Your task to perform on an android device: change alarm snooze length Image 0: 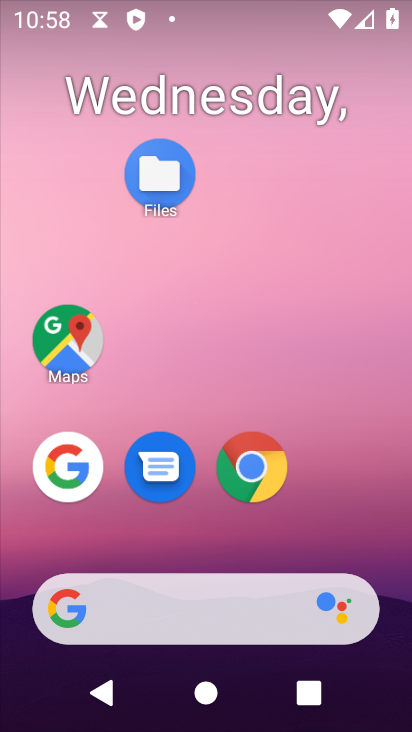
Step 0: drag from (221, 553) to (398, 485)
Your task to perform on an android device: change alarm snooze length Image 1: 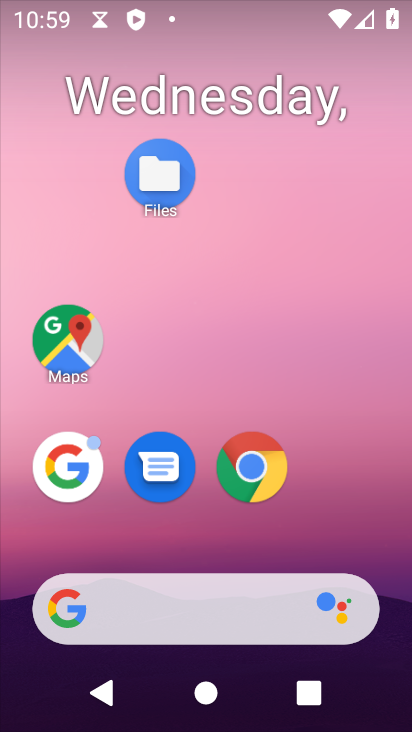
Step 1: drag from (217, 545) to (137, 42)
Your task to perform on an android device: change alarm snooze length Image 2: 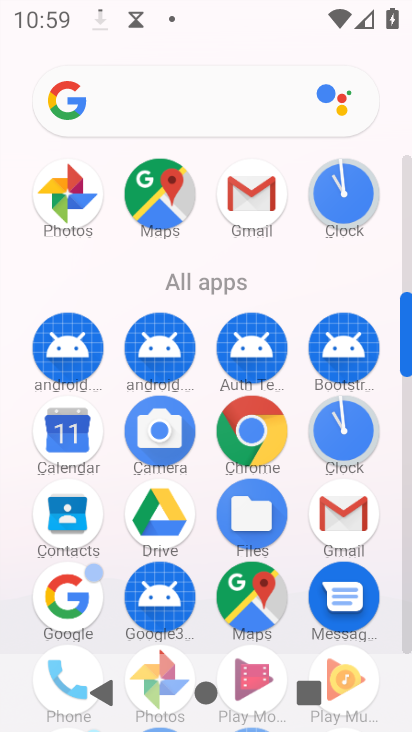
Step 2: click (350, 433)
Your task to perform on an android device: change alarm snooze length Image 3: 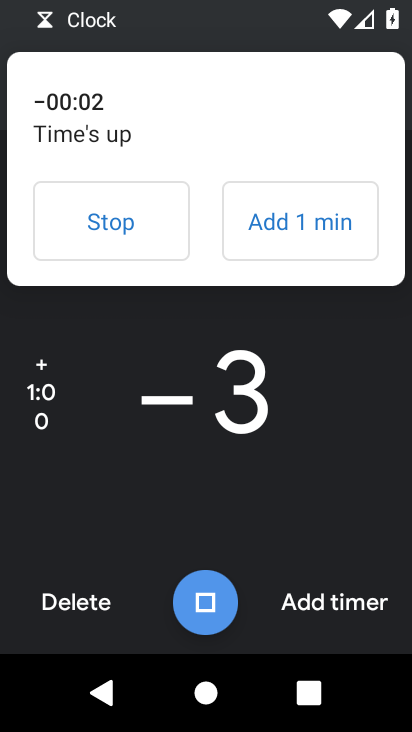
Step 3: click (137, 220)
Your task to perform on an android device: change alarm snooze length Image 4: 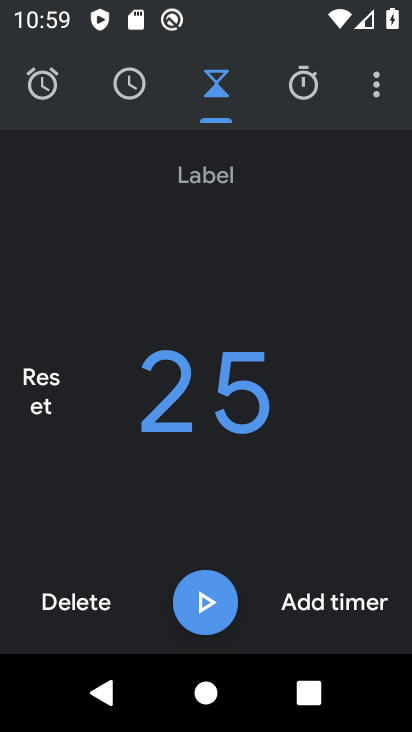
Step 4: click (378, 75)
Your task to perform on an android device: change alarm snooze length Image 5: 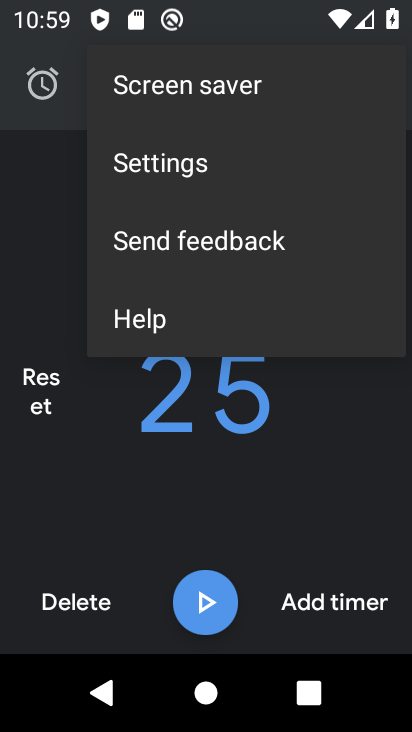
Step 5: click (165, 147)
Your task to perform on an android device: change alarm snooze length Image 6: 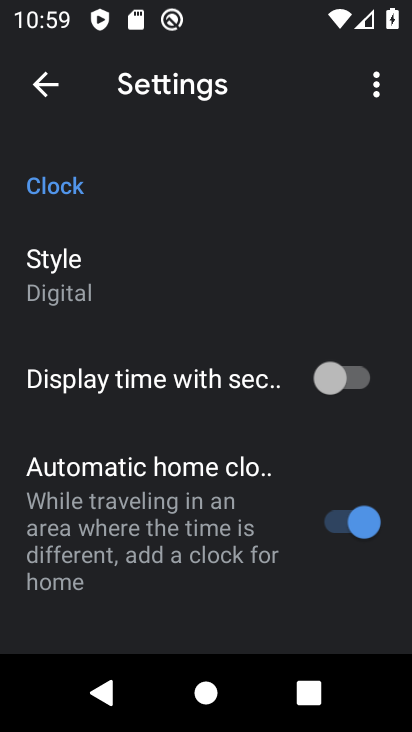
Step 6: drag from (181, 473) to (173, 166)
Your task to perform on an android device: change alarm snooze length Image 7: 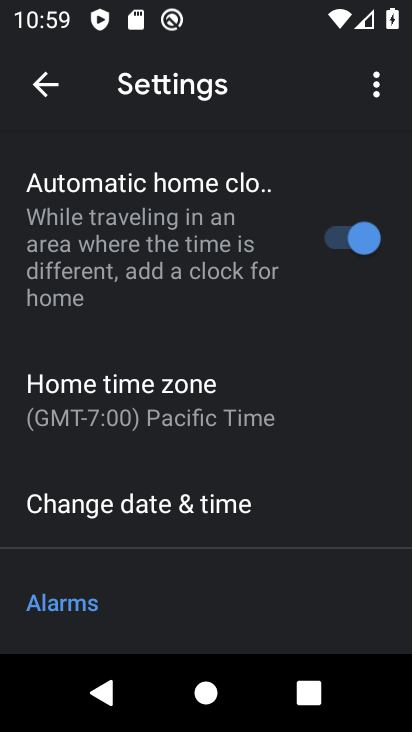
Step 7: drag from (143, 611) to (80, 174)
Your task to perform on an android device: change alarm snooze length Image 8: 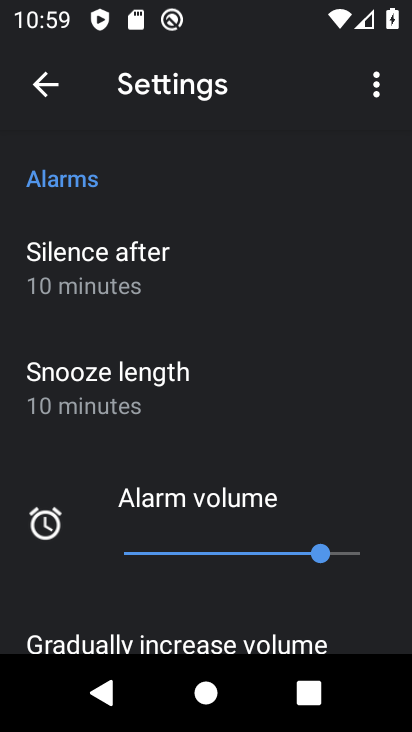
Step 8: click (126, 424)
Your task to perform on an android device: change alarm snooze length Image 9: 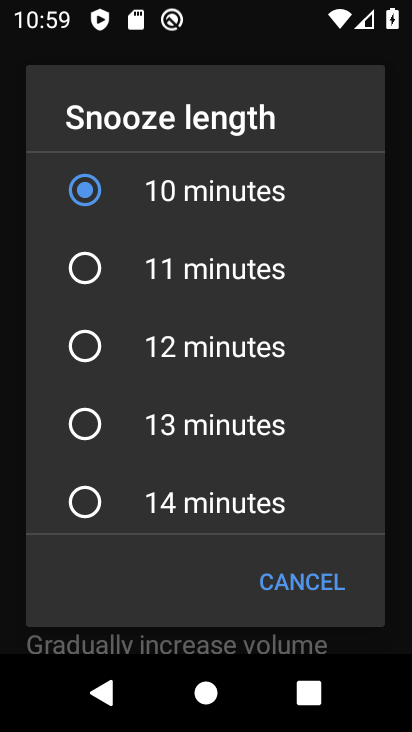
Step 9: click (86, 278)
Your task to perform on an android device: change alarm snooze length Image 10: 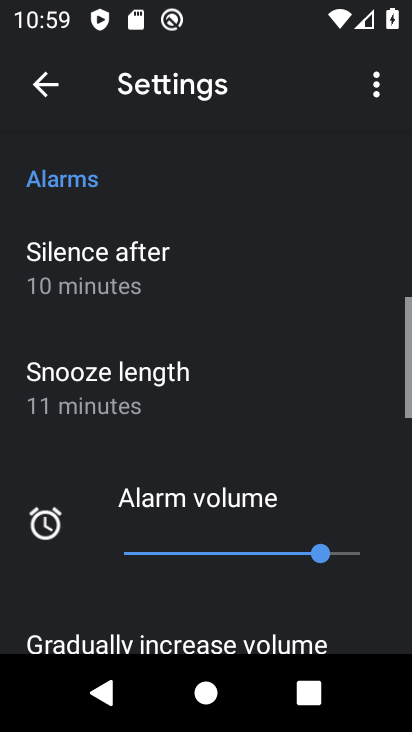
Step 10: task complete